Your task to perform on an android device: change notifications settings Image 0: 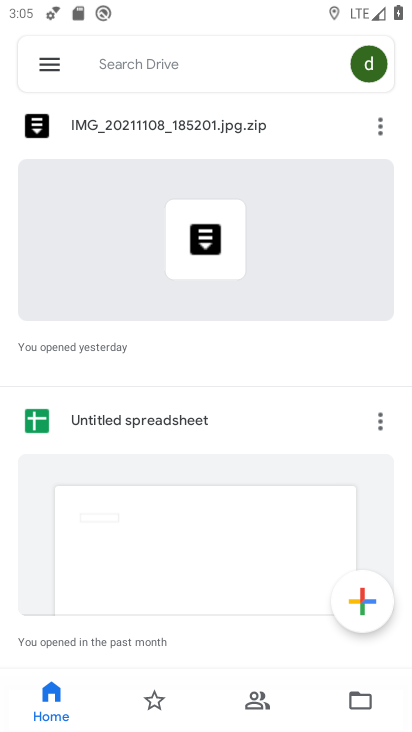
Step 0: press home button
Your task to perform on an android device: change notifications settings Image 1: 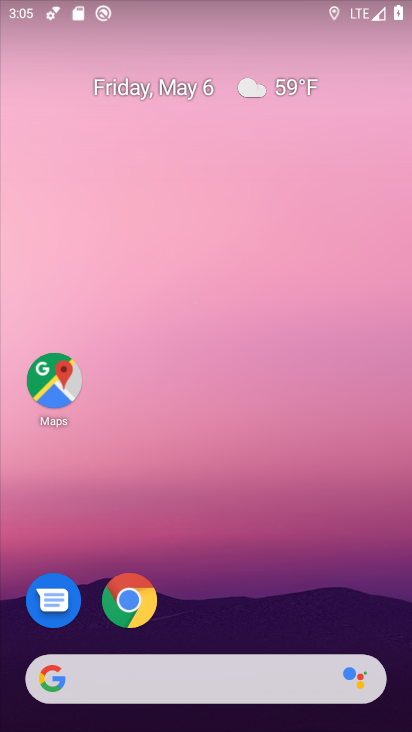
Step 1: drag from (244, 442) to (264, 108)
Your task to perform on an android device: change notifications settings Image 2: 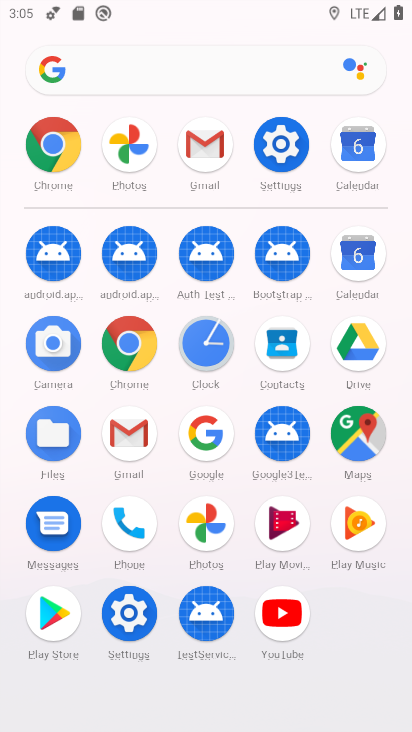
Step 2: click (278, 141)
Your task to perform on an android device: change notifications settings Image 3: 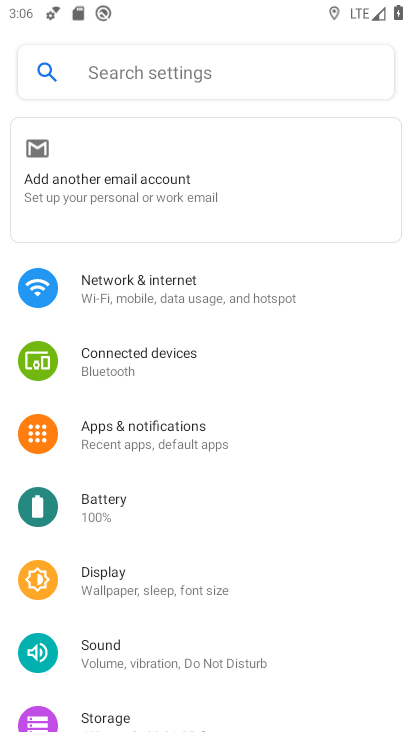
Step 3: drag from (201, 612) to (219, 133)
Your task to perform on an android device: change notifications settings Image 4: 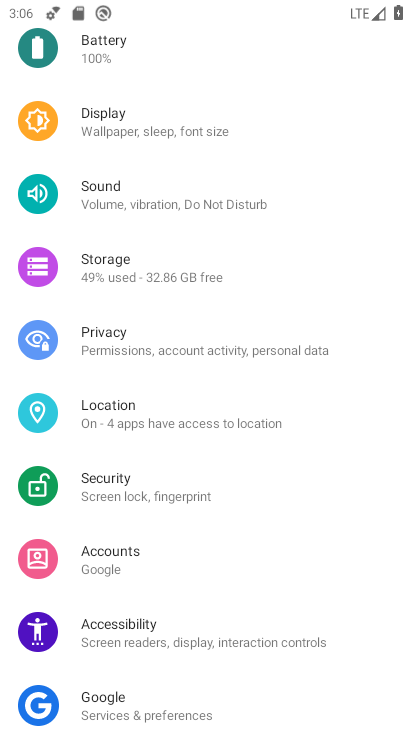
Step 4: drag from (228, 522) to (228, 169)
Your task to perform on an android device: change notifications settings Image 5: 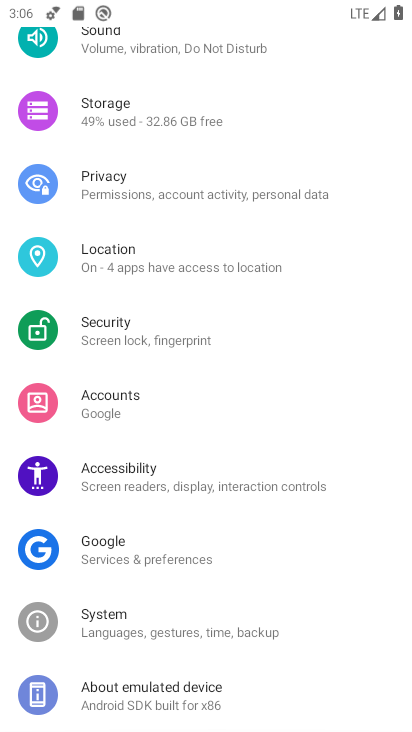
Step 5: drag from (201, 378) to (232, 709)
Your task to perform on an android device: change notifications settings Image 6: 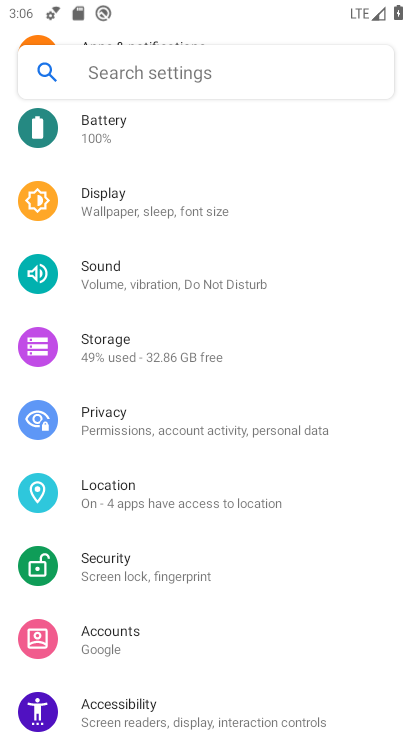
Step 6: drag from (142, 211) to (232, 571)
Your task to perform on an android device: change notifications settings Image 7: 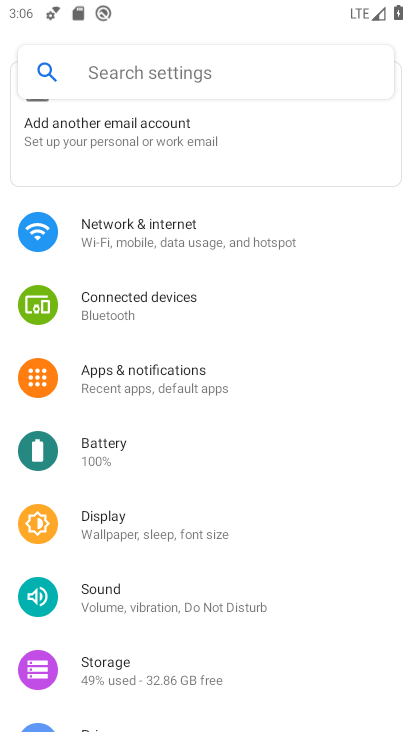
Step 7: click (147, 384)
Your task to perform on an android device: change notifications settings Image 8: 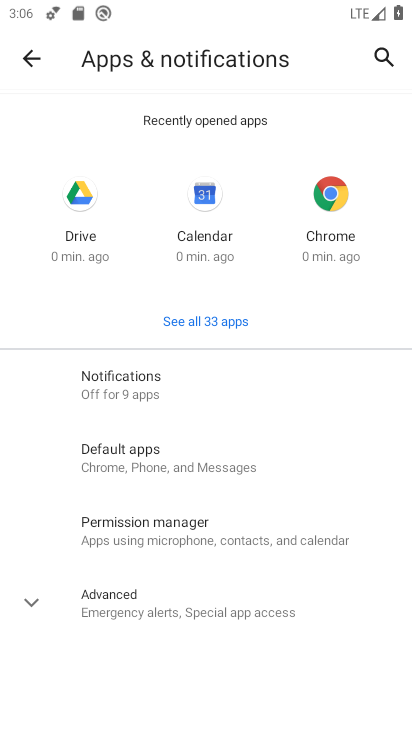
Step 8: click (161, 386)
Your task to perform on an android device: change notifications settings Image 9: 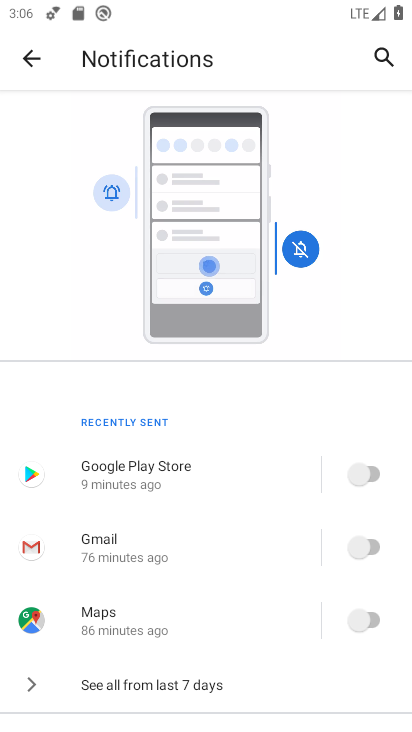
Step 9: click (357, 474)
Your task to perform on an android device: change notifications settings Image 10: 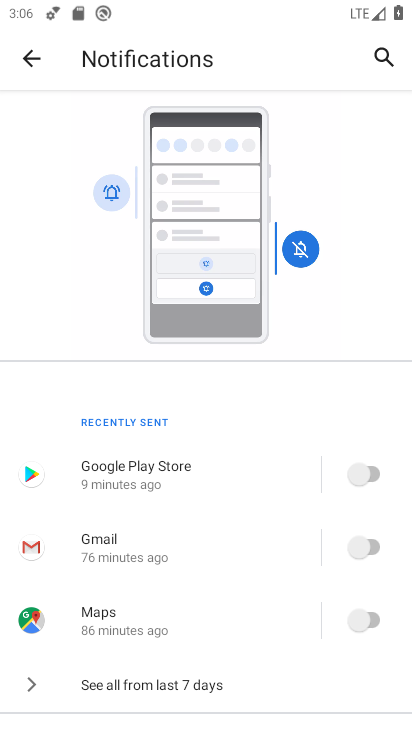
Step 10: click (358, 534)
Your task to perform on an android device: change notifications settings Image 11: 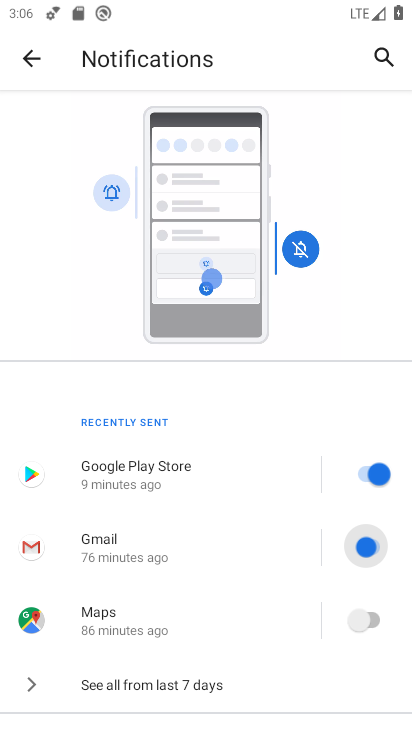
Step 11: click (380, 645)
Your task to perform on an android device: change notifications settings Image 12: 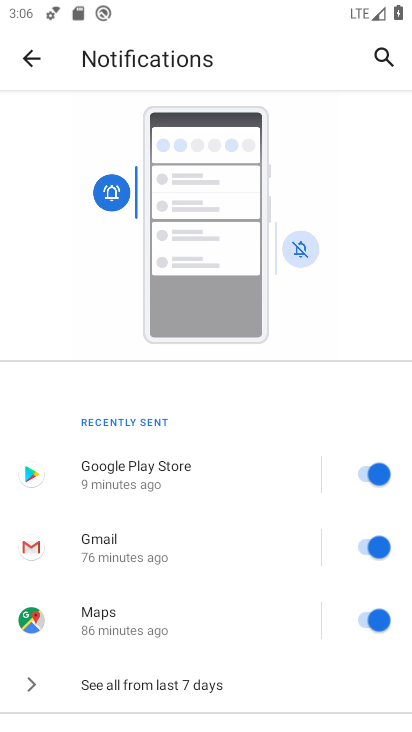
Step 12: click (192, 687)
Your task to perform on an android device: change notifications settings Image 13: 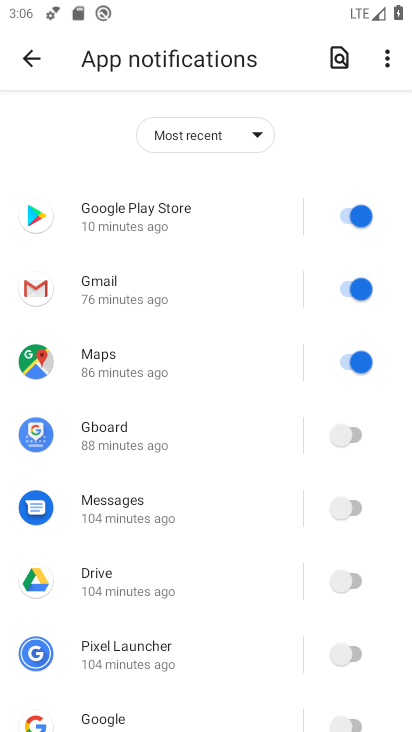
Step 13: click (349, 441)
Your task to perform on an android device: change notifications settings Image 14: 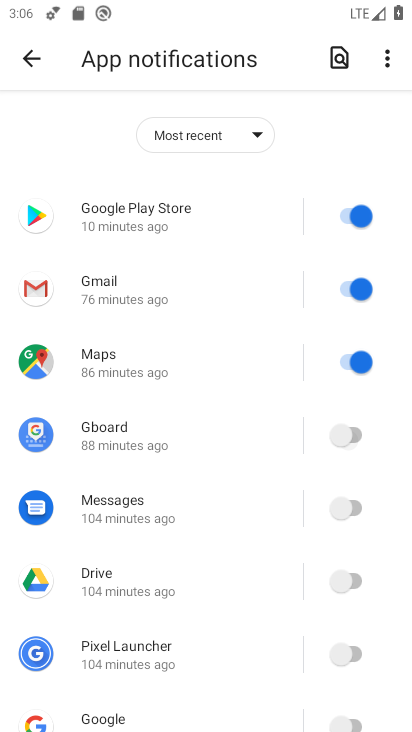
Step 14: click (338, 540)
Your task to perform on an android device: change notifications settings Image 15: 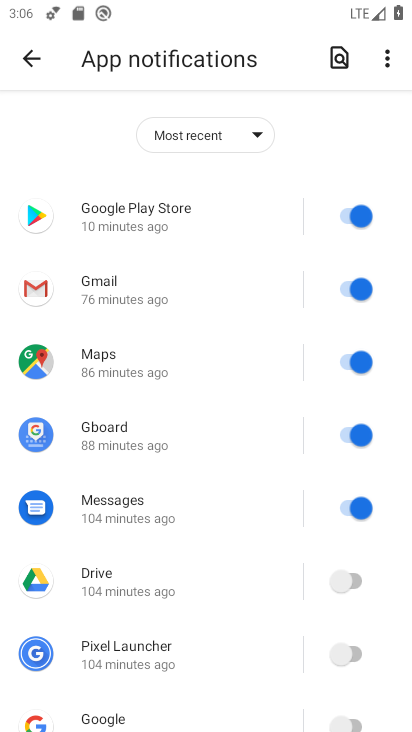
Step 15: click (344, 587)
Your task to perform on an android device: change notifications settings Image 16: 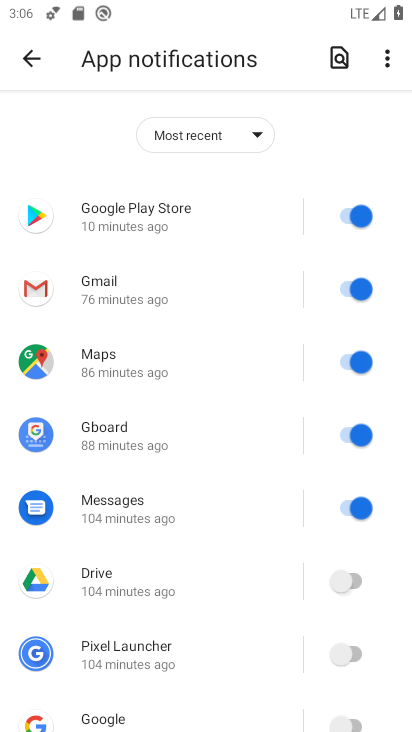
Step 16: click (337, 639)
Your task to perform on an android device: change notifications settings Image 17: 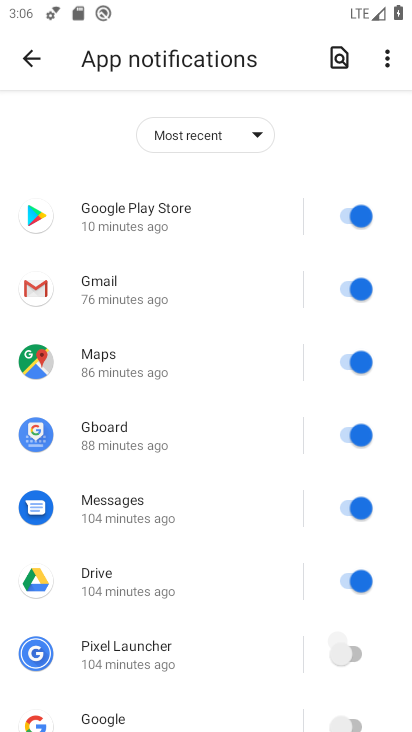
Step 17: click (350, 705)
Your task to perform on an android device: change notifications settings Image 18: 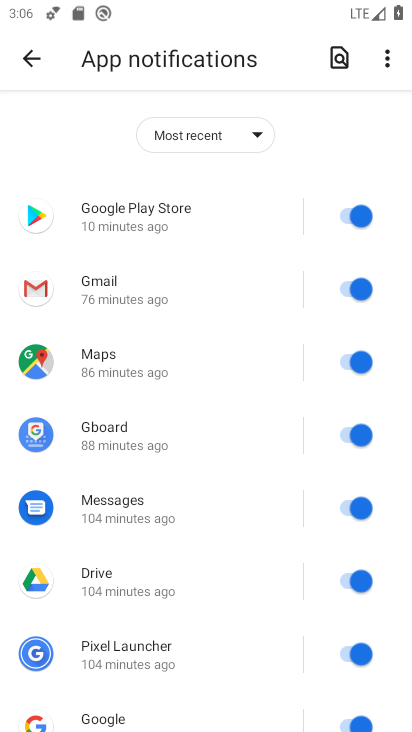
Step 18: drag from (267, 624) to (229, 18)
Your task to perform on an android device: change notifications settings Image 19: 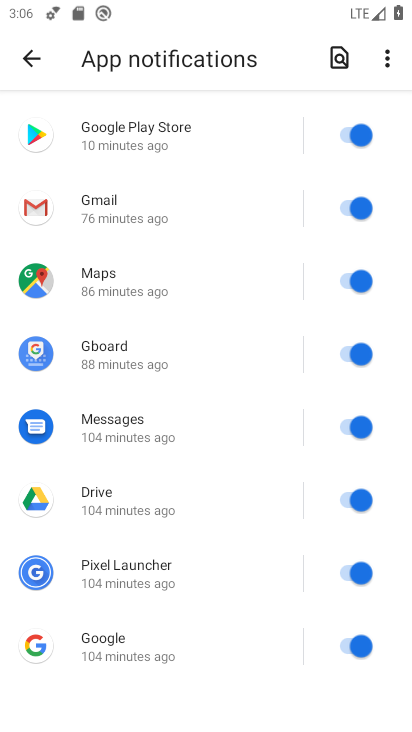
Step 19: press back button
Your task to perform on an android device: change notifications settings Image 20: 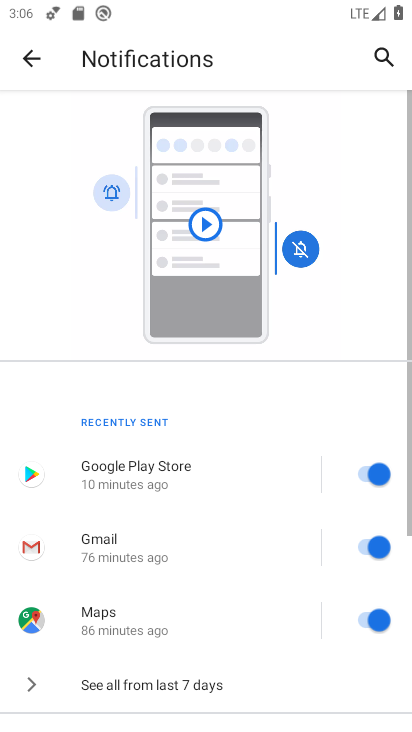
Step 20: drag from (178, 614) to (208, 130)
Your task to perform on an android device: change notifications settings Image 21: 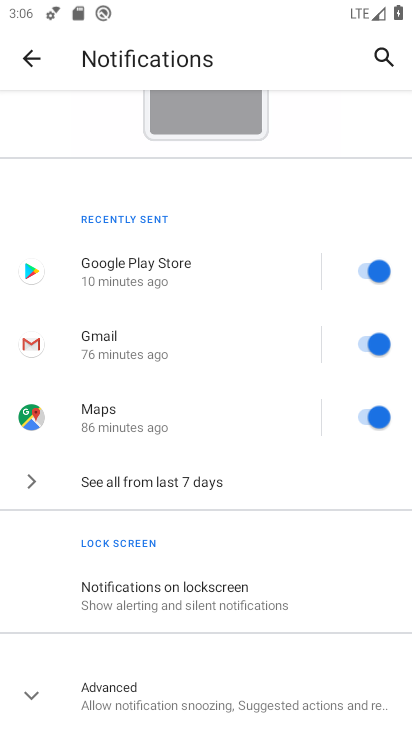
Step 21: click (193, 689)
Your task to perform on an android device: change notifications settings Image 22: 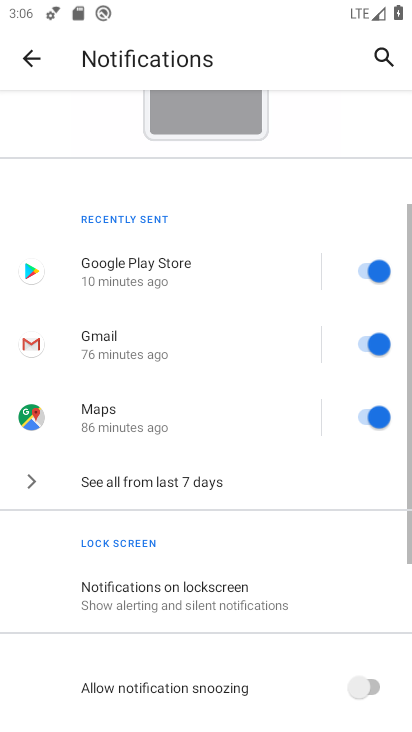
Step 22: drag from (243, 570) to (276, 114)
Your task to perform on an android device: change notifications settings Image 23: 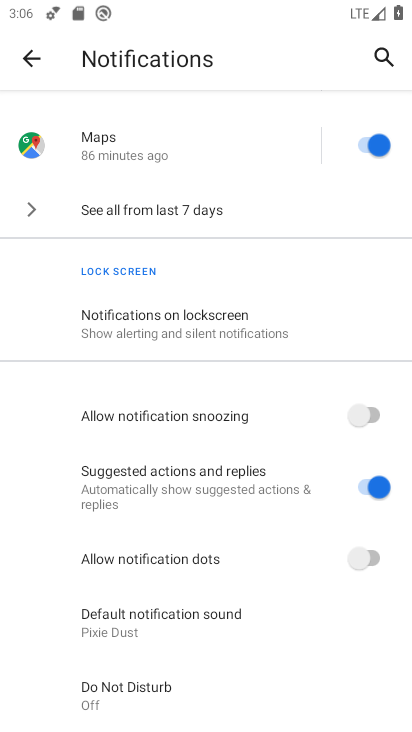
Step 23: click (365, 410)
Your task to perform on an android device: change notifications settings Image 24: 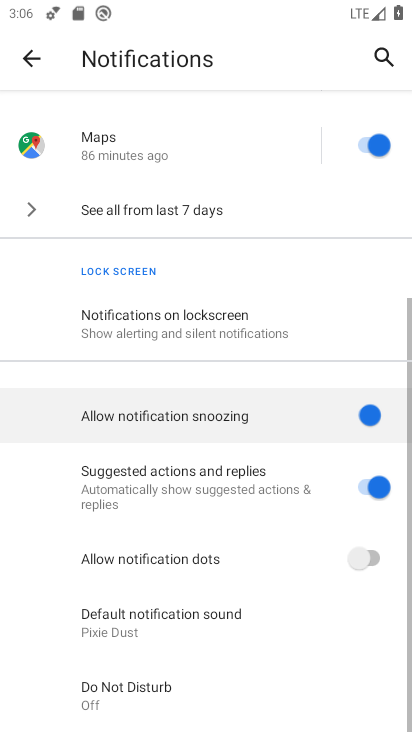
Step 24: click (377, 574)
Your task to perform on an android device: change notifications settings Image 25: 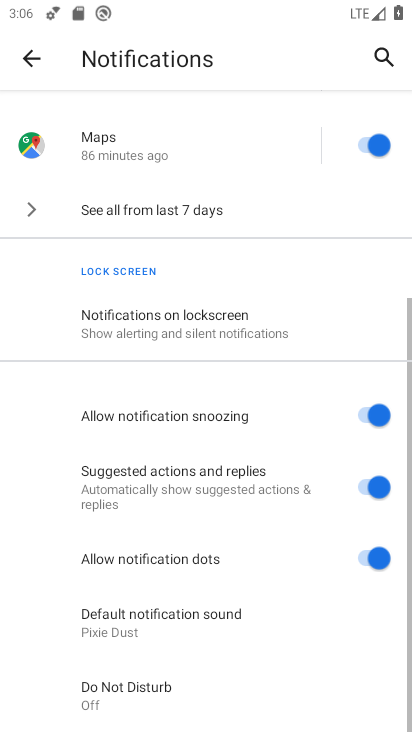
Step 25: drag from (329, 639) to (329, 204)
Your task to perform on an android device: change notifications settings Image 26: 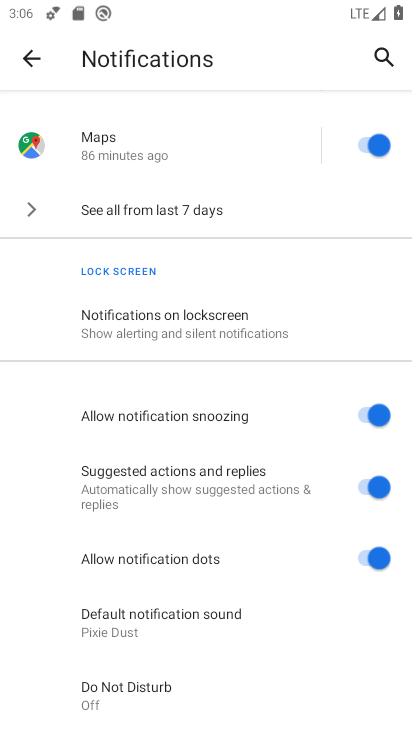
Step 26: click (384, 482)
Your task to perform on an android device: change notifications settings Image 27: 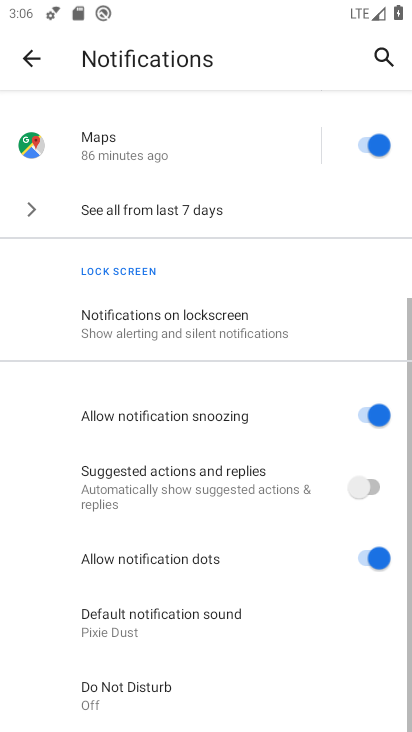
Step 27: task complete